Your task to perform on an android device: Open Google Maps and go to "Timeline" Image 0: 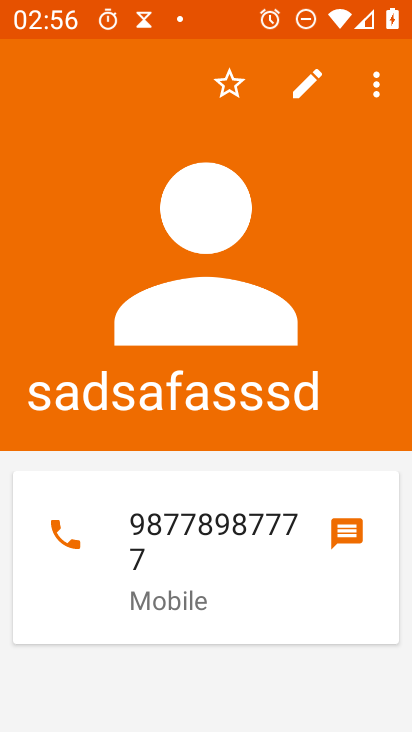
Step 0: press home button
Your task to perform on an android device: Open Google Maps and go to "Timeline" Image 1: 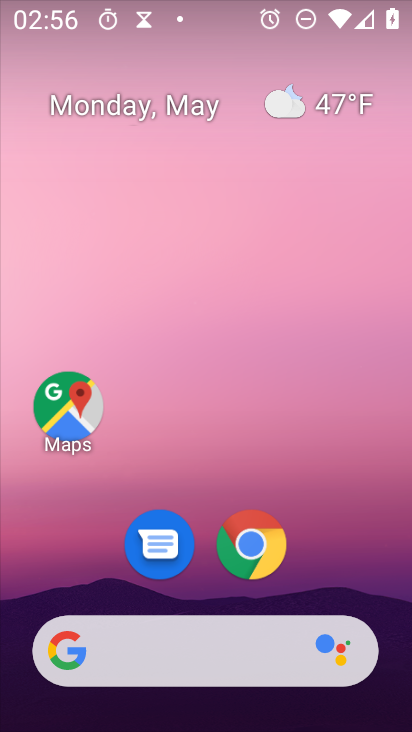
Step 1: drag from (328, 607) to (392, 729)
Your task to perform on an android device: Open Google Maps and go to "Timeline" Image 2: 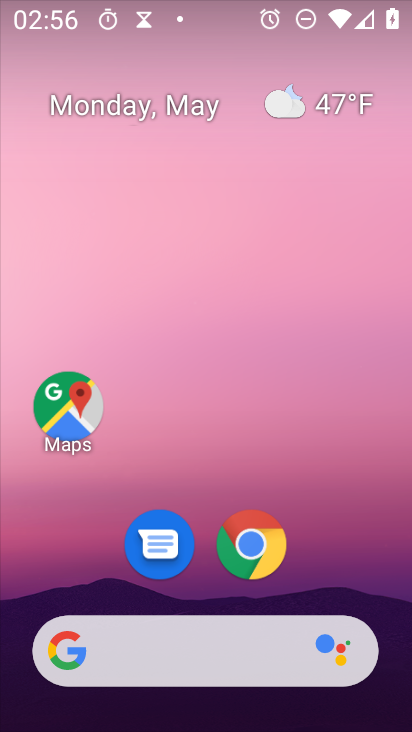
Step 2: click (256, 406)
Your task to perform on an android device: Open Google Maps and go to "Timeline" Image 3: 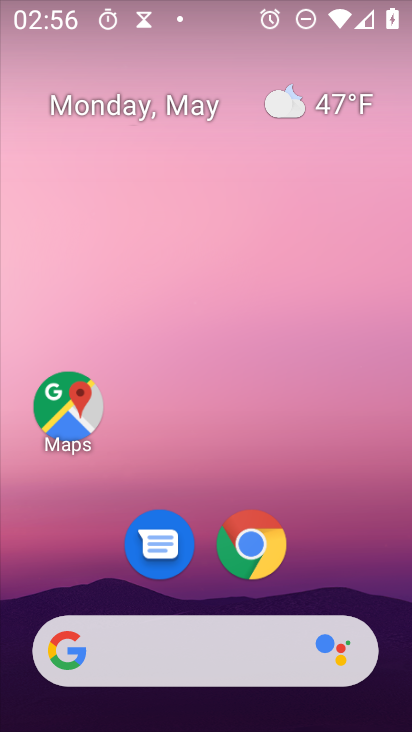
Step 3: drag from (359, 625) to (324, 48)
Your task to perform on an android device: Open Google Maps and go to "Timeline" Image 4: 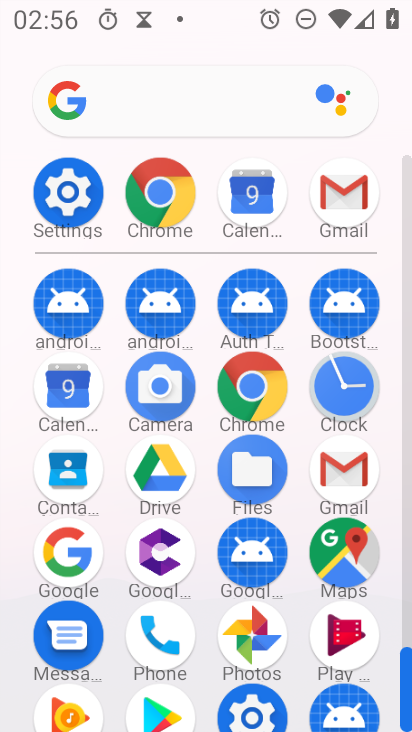
Step 4: click (250, 377)
Your task to perform on an android device: Open Google Maps and go to "Timeline" Image 5: 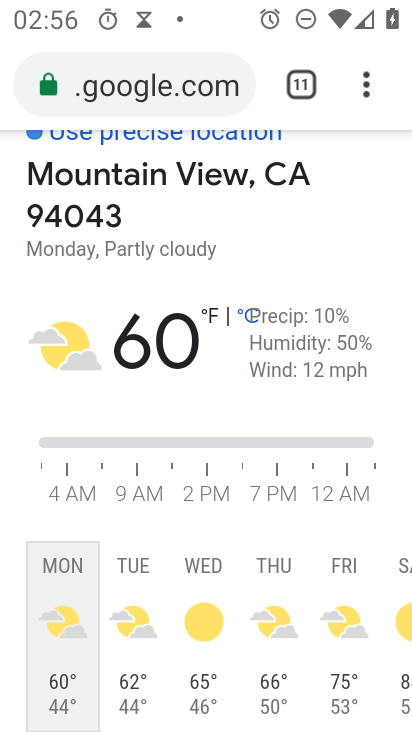
Step 5: drag from (360, 83) to (167, 557)
Your task to perform on an android device: Open Google Maps and go to "Timeline" Image 6: 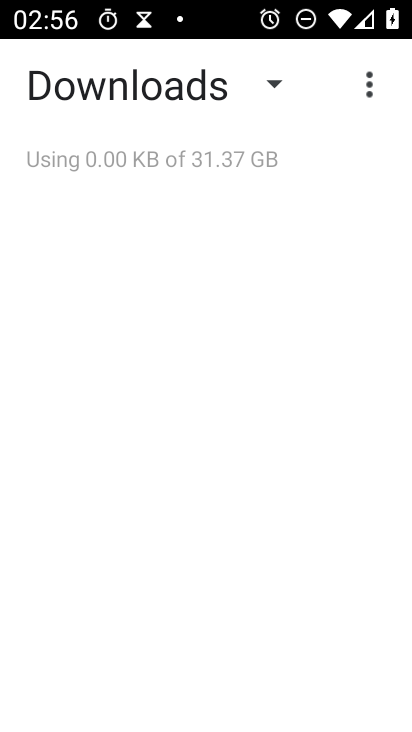
Step 6: press home button
Your task to perform on an android device: Open Google Maps and go to "Timeline" Image 7: 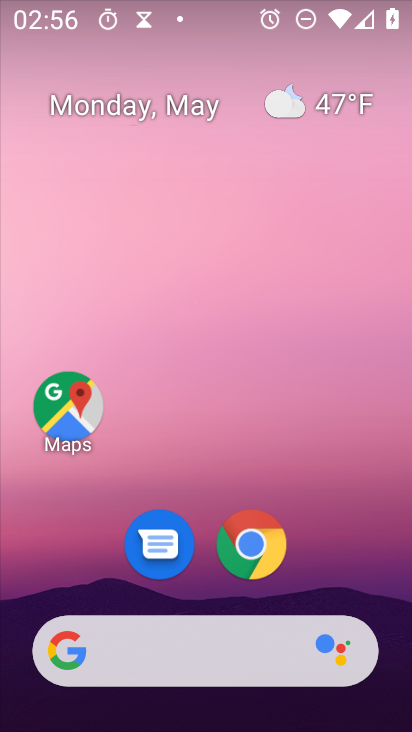
Step 7: drag from (337, 634) to (285, 71)
Your task to perform on an android device: Open Google Maps and go to "Timeline" Image 8: 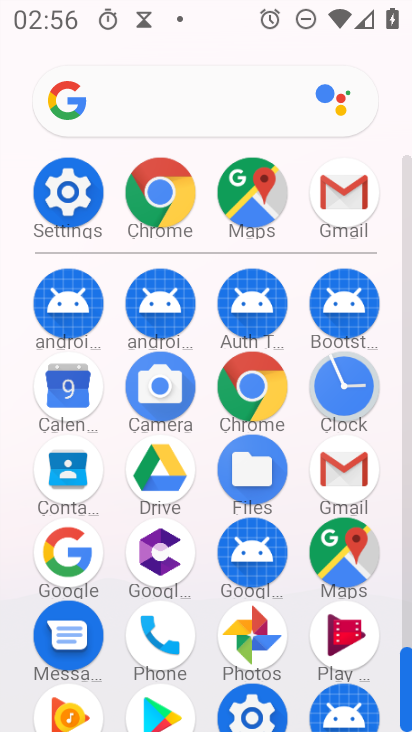
Step 8: click (345, 578)
Your task to perform on an android device: Open Google Maps and go to "Timeline" Image 9: 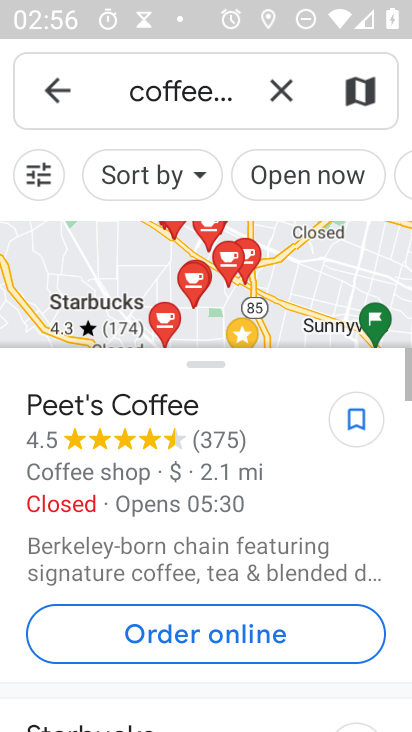
Step 9: press back button
Your task to perform on an android device: Open Google Maps and go to "Timeline" Image 10: 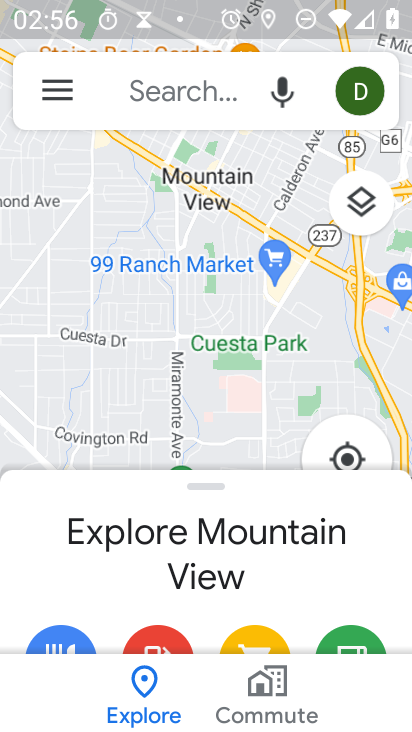
Step 10: click (51, 84)
Your task to perform on an android device: Open Google Maps and go to "Timeline" Image 11: 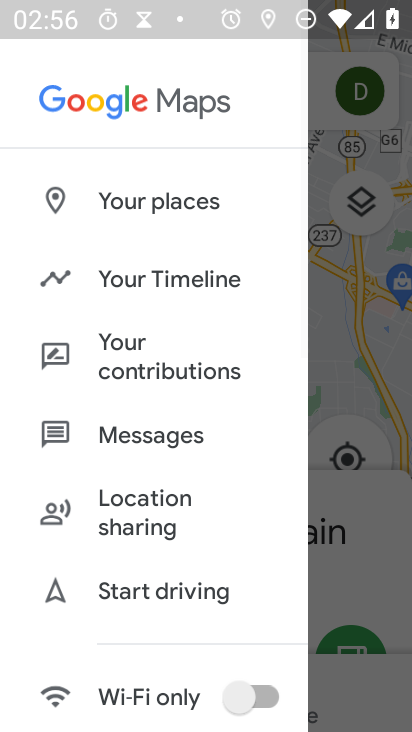
Step 11: click (185, 289)
Your task to perform on an android device: Open Google Maps and go to "Timeline" Image 12: 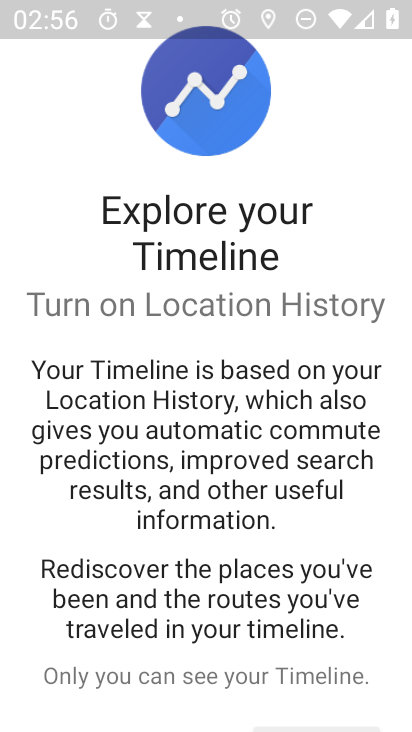
Step 12: drag from (296, 701) to (282, 123)
Your task to perform on an android device: Open Google Maps and go to "Timeline" Image 13: 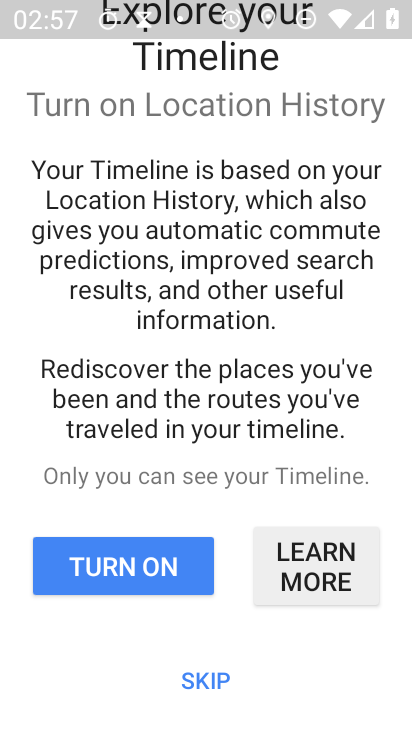
Step 13: click (201, 679)
Your task to perform on an android device: Open Google Maps and go to "Timeline" Image 14: 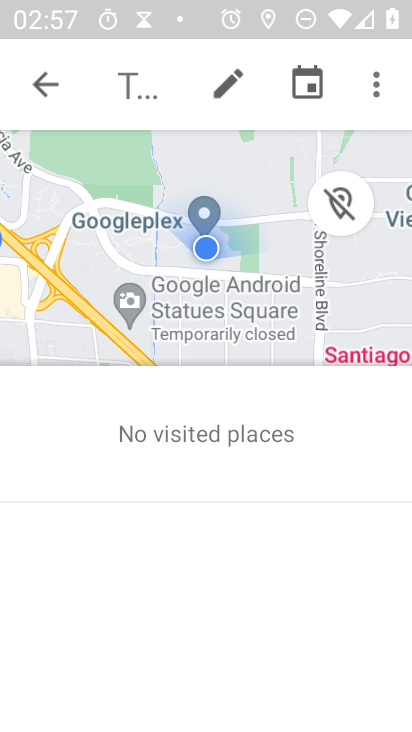
Step 14: task complete